Your task to perform on an android device: Go to eBay Image 0: 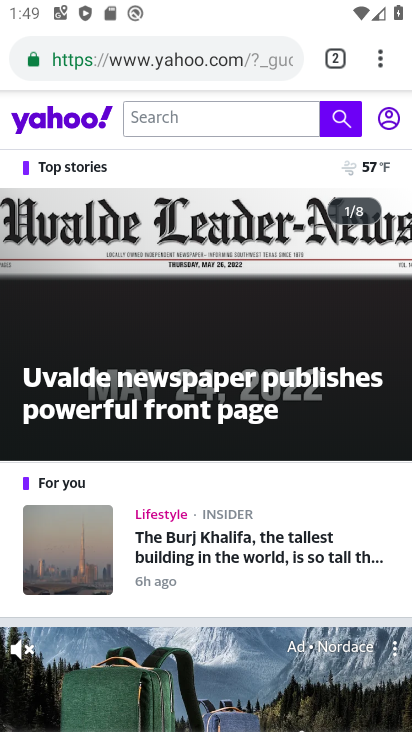
Step 0: click (380, 62)
Your task to perform on an android device: Go to eBay Image 1: 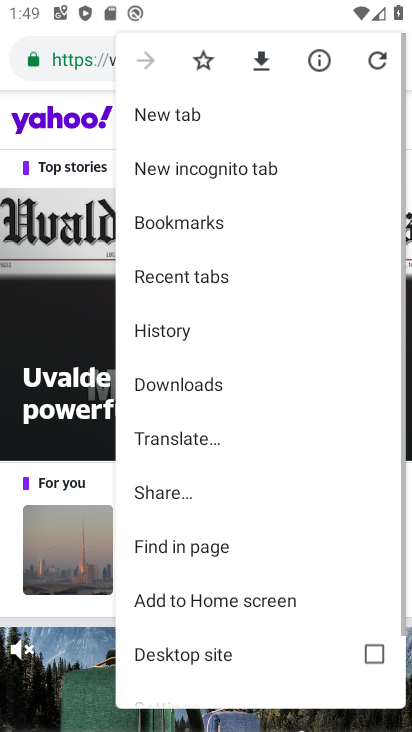
Step 1: click (174, 110)
Your task to perform on an android device: Go to eBay Image 2: 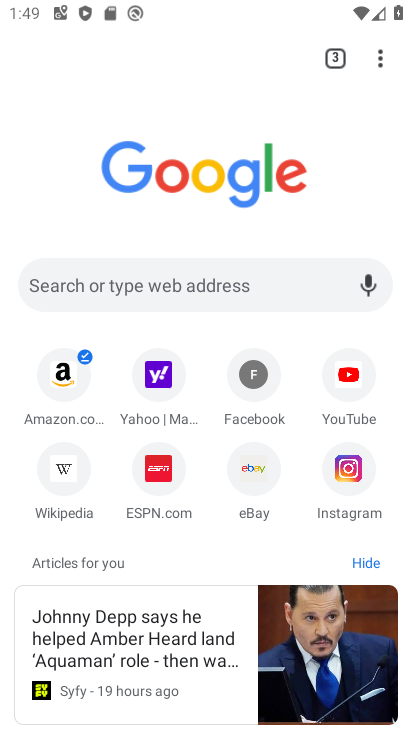
Step 2: click (253, 462)
Your task to perform on an android device: Go to eBay Image 3: 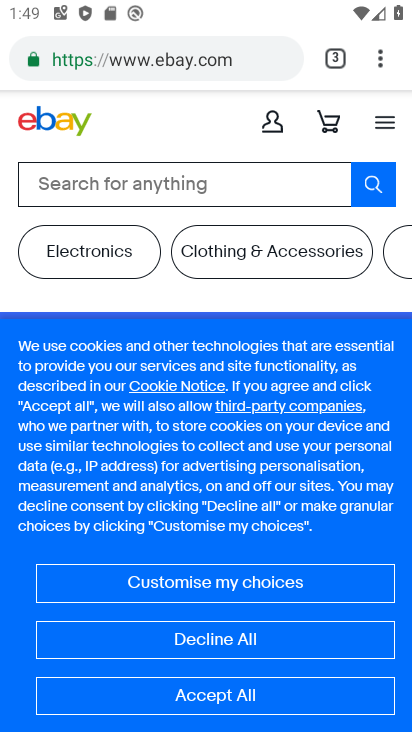
Step 3: task complete